Your task to perform on an android device: Show me popular games on the Play Store Image 0: 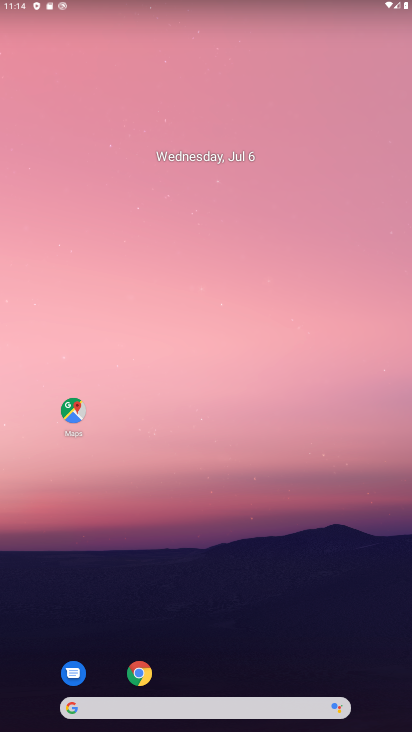
Step 0: drag from (284, 564) to (181, 134)
Your task to perform on an android device: Show me popular games on the Play Store Image 1: 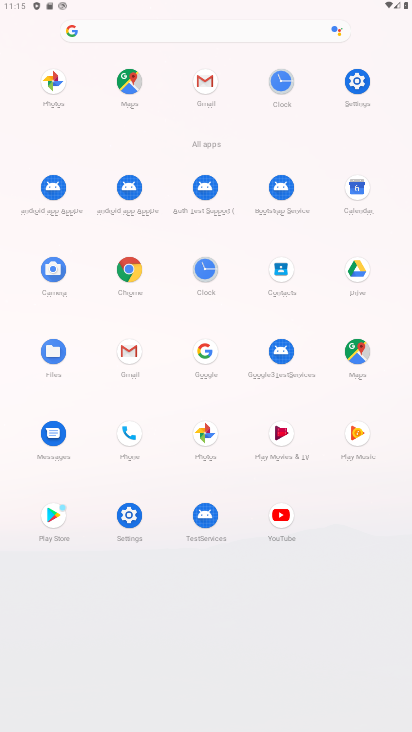
Step 1: drag from (228, 398) to (249, 724)
Your task to perform on an android device: Show me popular games on the Play Store Image 2: 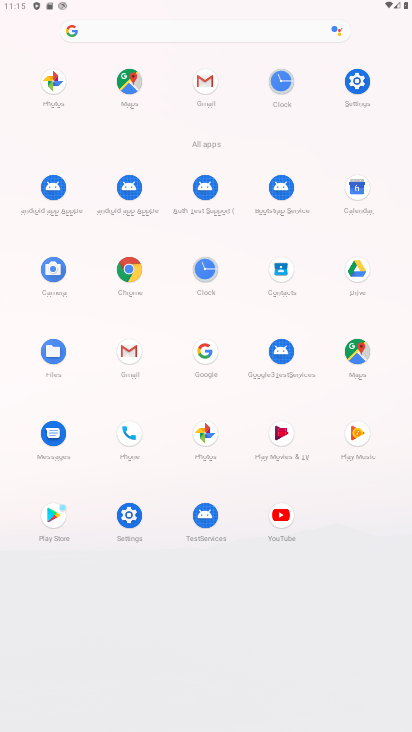
Step 2: drag from (287, 578) to (239, 207)
Your task to perform on an android device: Show me popular games on the Play Store Image 3: 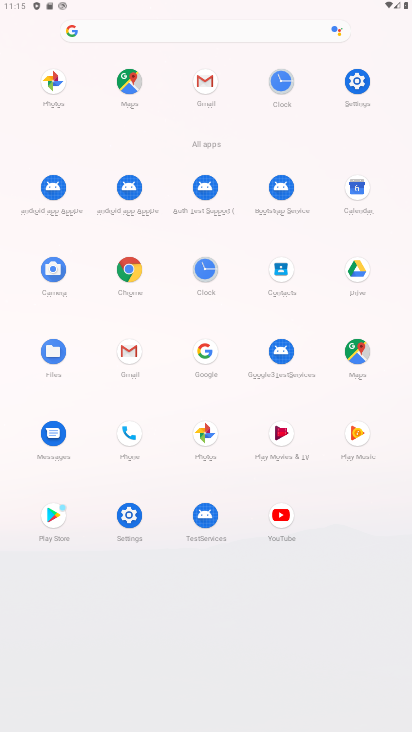
Step 3: click (47, 516)
Your task to perform on an android device: Show me popular games on the Play Store Image 4: 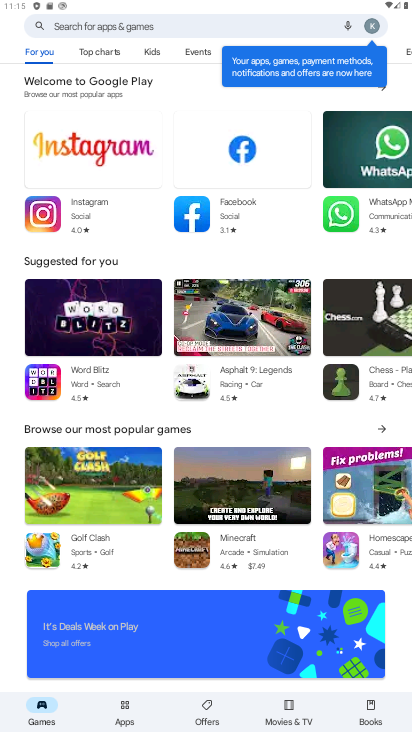
Step 4: task complete